Your task to perform on an android device: allow notifications from all sites in the chrome app Image 0: 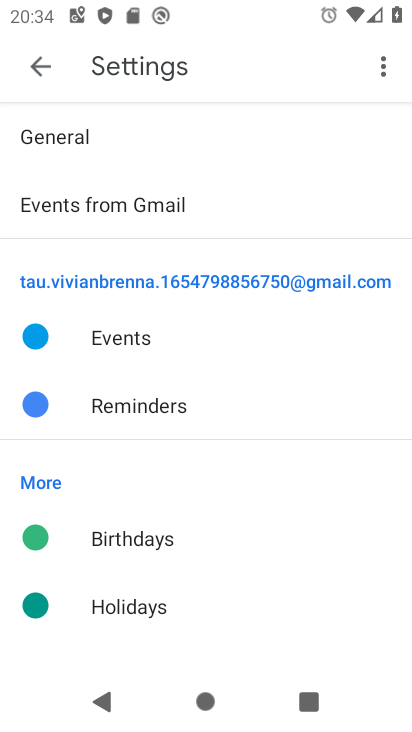
Step 0: press home button
Your task to perform on an android device: allow notifications from all sites in the chrome app Image 1: 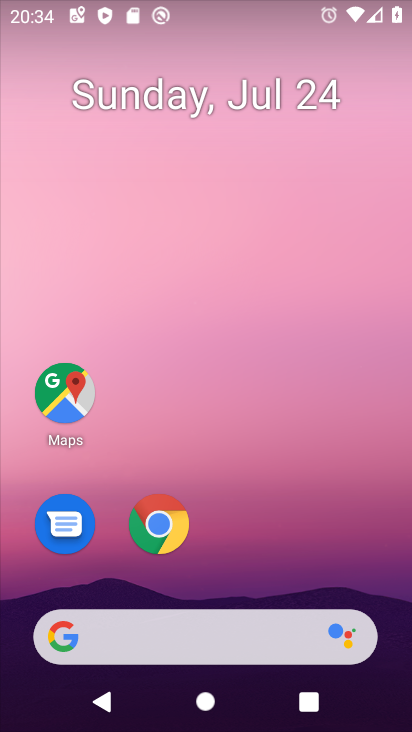
Step 1: click (161, 522)
Your task to perform on an android device: allow notifications from all sites in the chrome app Image 2: 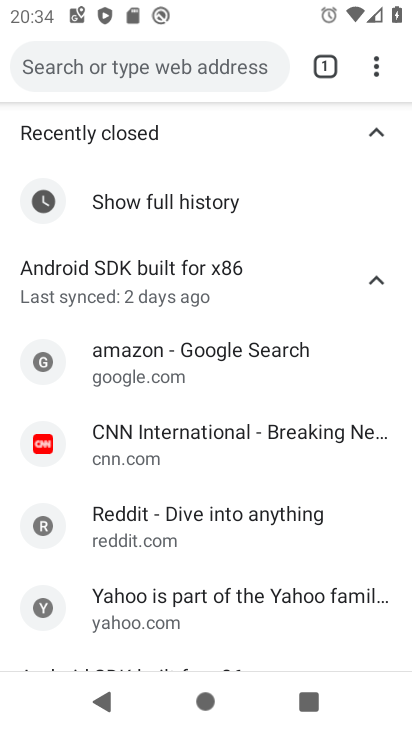
Step 2: press back button
Your task to perform on an android device: allow notifications from all sites in the chrome app Image 3: 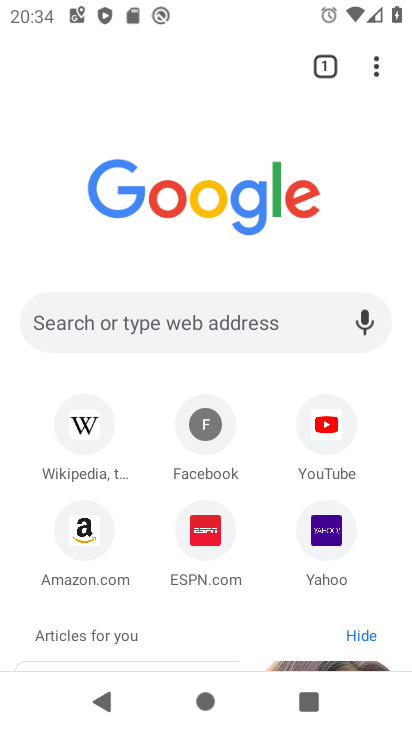
Step 3: click (373, 68)
Your task to perform on an android device: allow notifications from all sites in the chrome app Image 4: 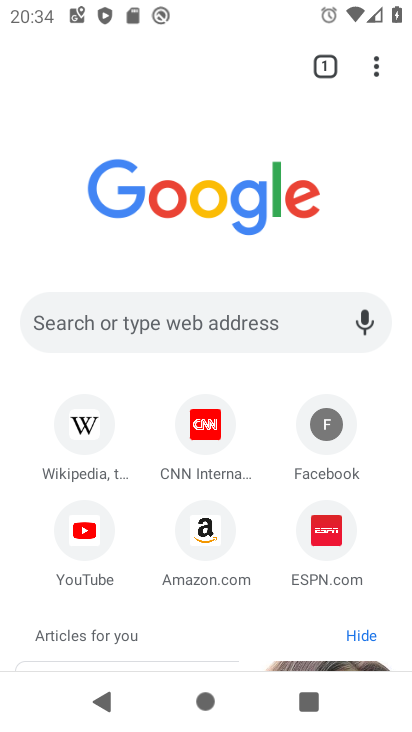
Step 4: click (373, 68)
Your task to perform on an android device: allow notifications from all sites in the chrome app Image 5: 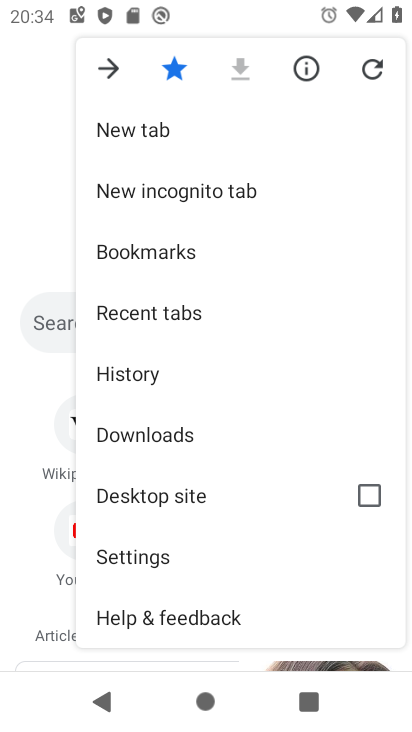
Step 5: click (144, 550)
Your task to perform on an android device: allow notifications from all sites in the chrome app Image 6: 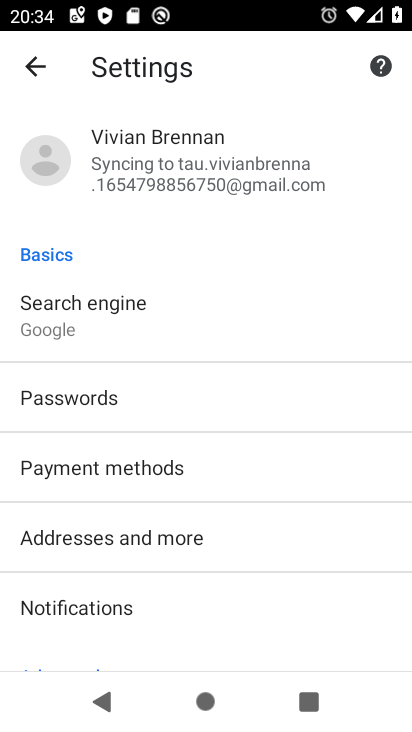
Step 6: drag from (261, 532) to (316, 206)
Your task to perform on an android device: allow notifications from all sites in the chrome app Image 7: 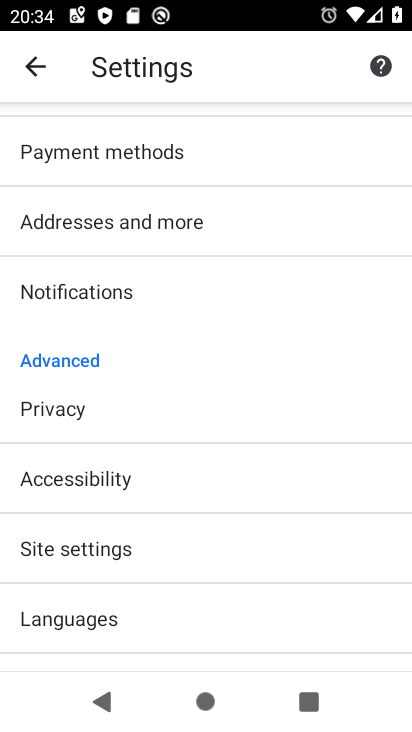
Step 7: click (240, 276)
Your task to perform on an android device: allow notifications from all sites in the chrome app Image 8: 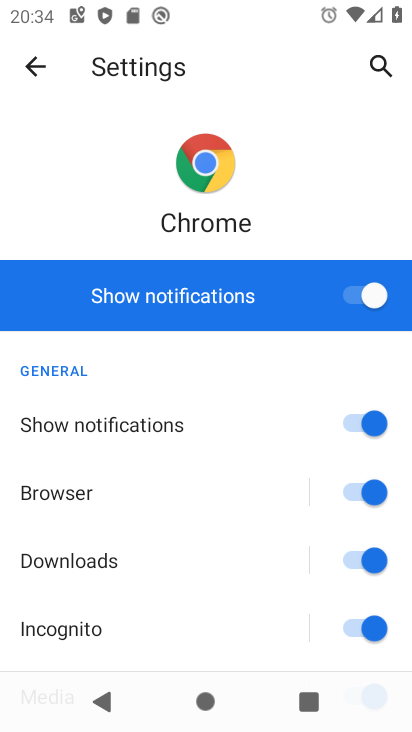
Step 8: task complete